Your task to perform on an android device: Open my contact list Image 0: 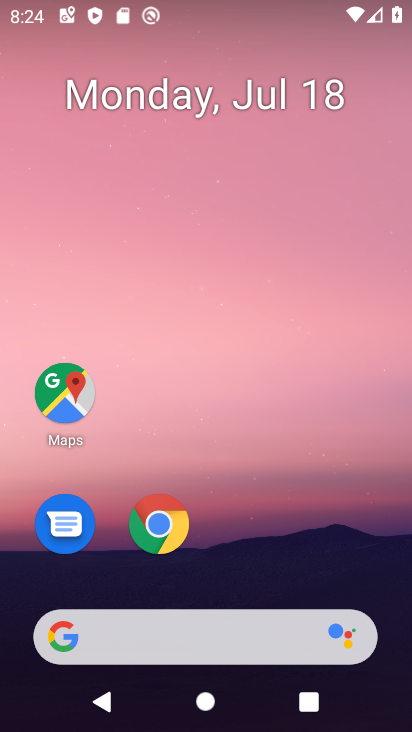
Step 0: drag from (270, 501) to (273, 12)
Your task to perform on an android device: Open my contact list Image 1: 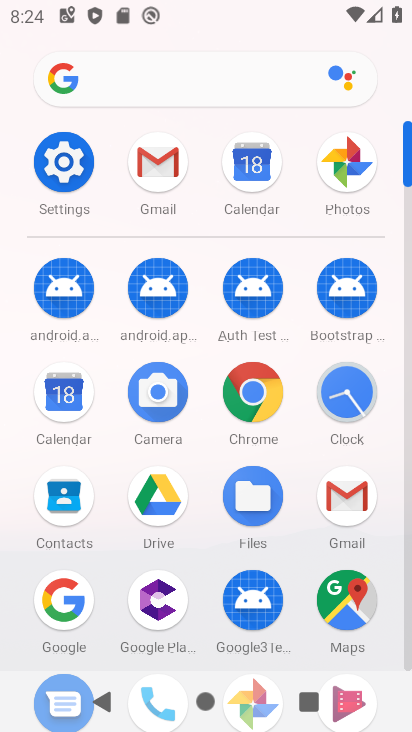
Step 1: click (61, 492)
Your task to perform on an android device: Open my contact list Image 2: 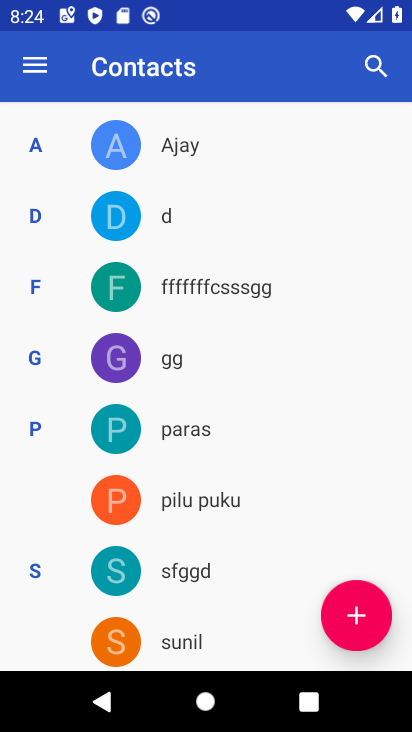
Step 2: task complete